Your task to perform on an android device: Go to wifi settings Image 0: 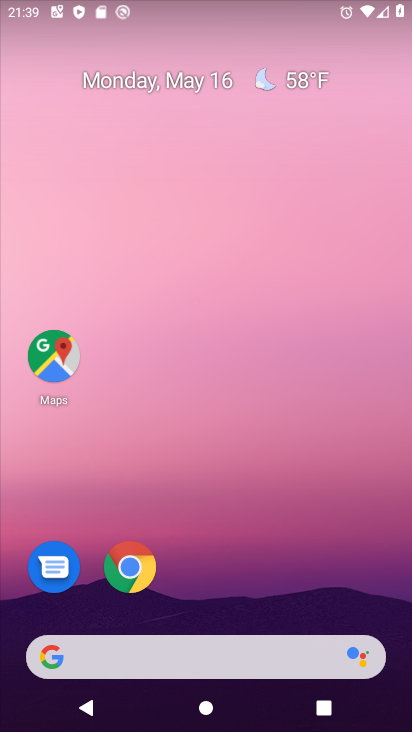
Step 0: drag from (266, 597) to (292, 138)
Your task to perform on an android device: Go to wifi settings Image 1: 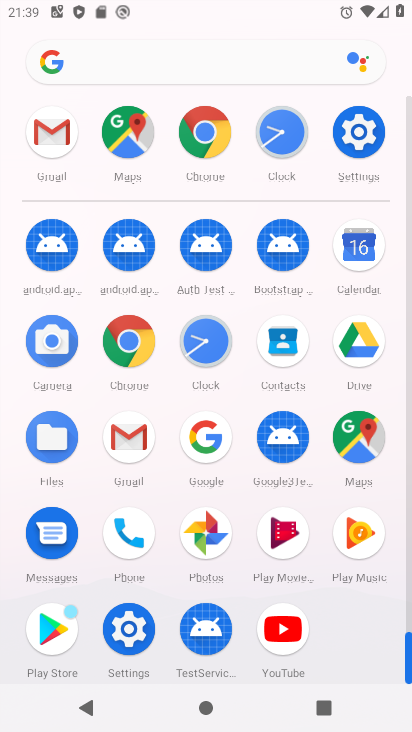
Step 1: click (351, 120)
Your task to perform on an android device: Go to wifi settings Image 2: 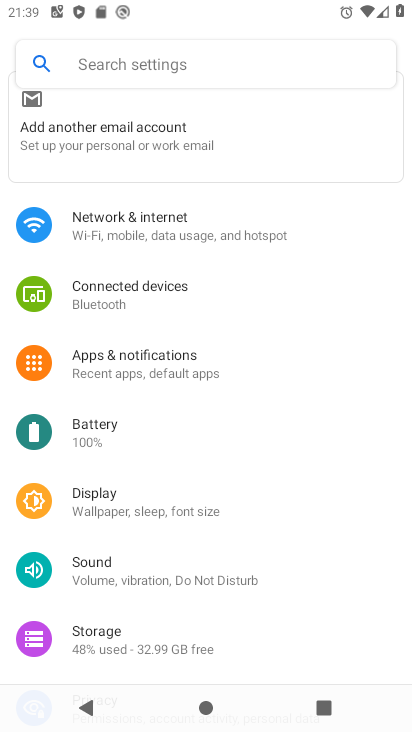
Step 2: click (165, 238)
Your task to perform on an android device: Go to wifi settings Image 3: 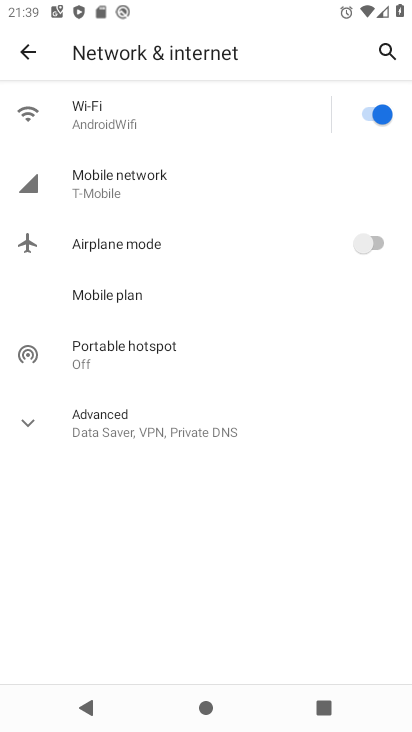
Step 3: click (148, 120)
Your task to perform on an android device: Go to wifi settings Image 4: 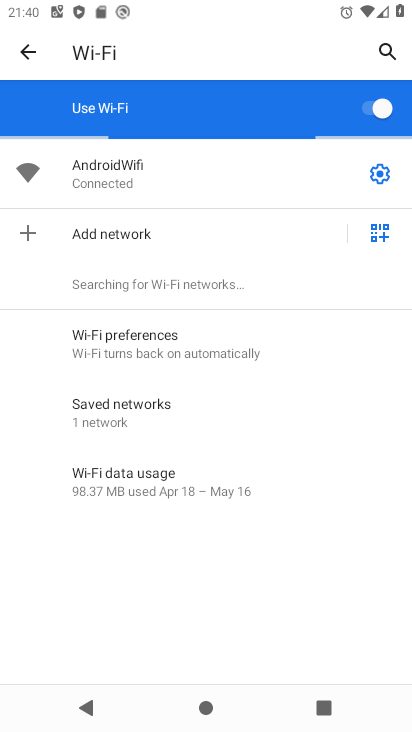
Step 4: task complete